Your task to perform on an android device: turn off airplane mode Image 0: 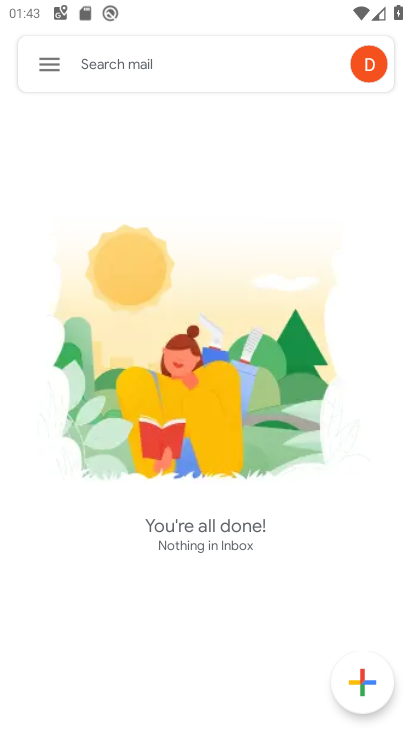
Step 0: press home button
Your task to perform on an android device: turn off airplane mode Image 1: 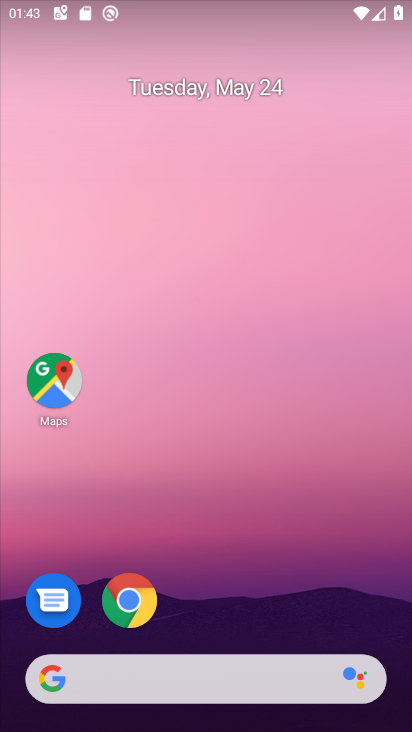
Step 1: drag from (281, 533) to (313, 228)
Your task to perform on an android device: turn off airplane mode Image 2: 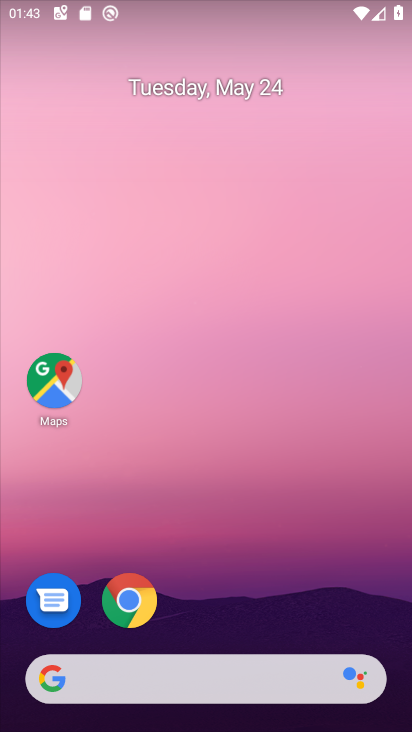
Step 2: drag from (172, 452) to (244, 2)
Your task to perform on an android device: turn off airplane mode Image 3: 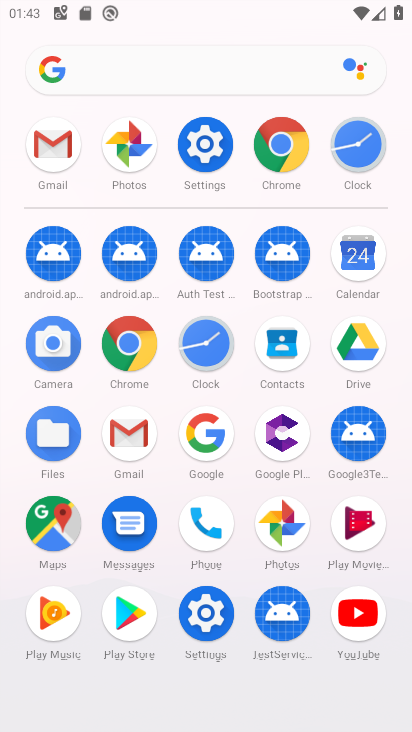
Step 3: click (205, 176)
Your task to perform on an android device: turn off airplane mode Image 4: 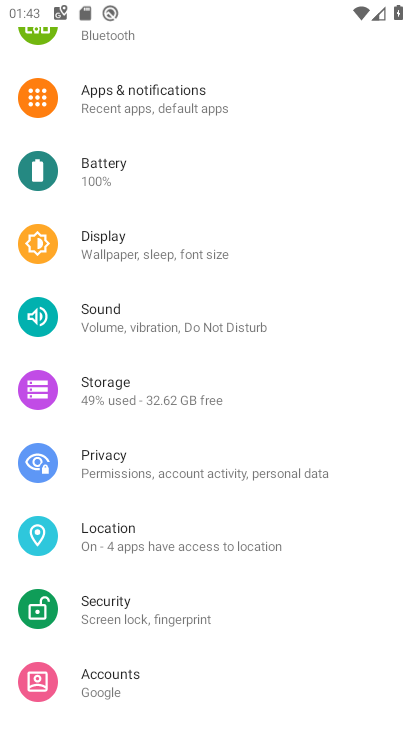
Step 4: drag from (221, 179) to (228, 604)
Your task to perform on an android device: turn off airplane mode Image 5: 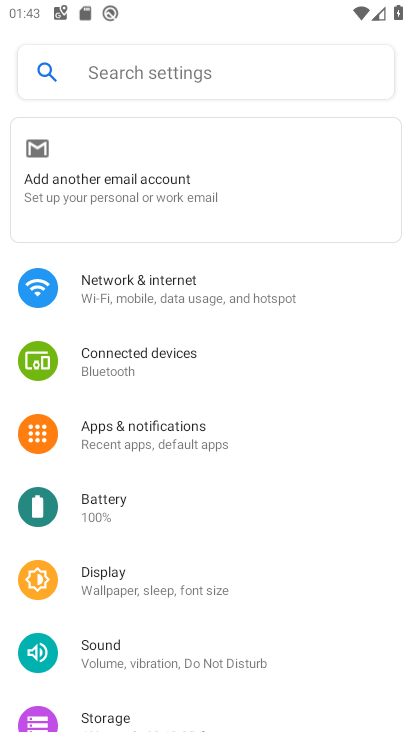
Step 5: click (252, 285)
Your task to perform on an android device: turn off airplane mode Image 6: 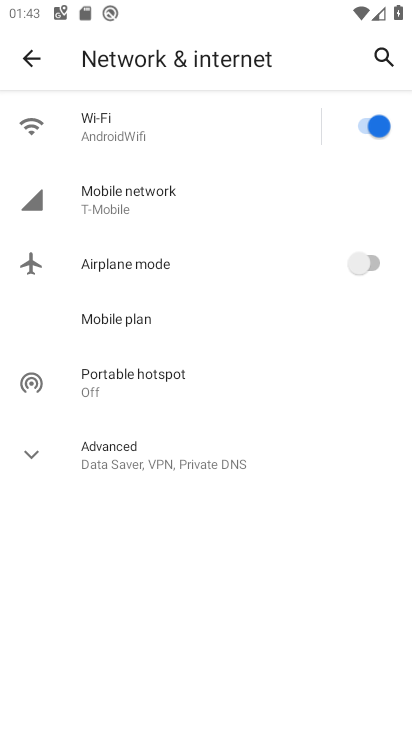
Step 6: task complete